Your task to perform on an android device: How do I get to the nearest Burger King? Image 0: 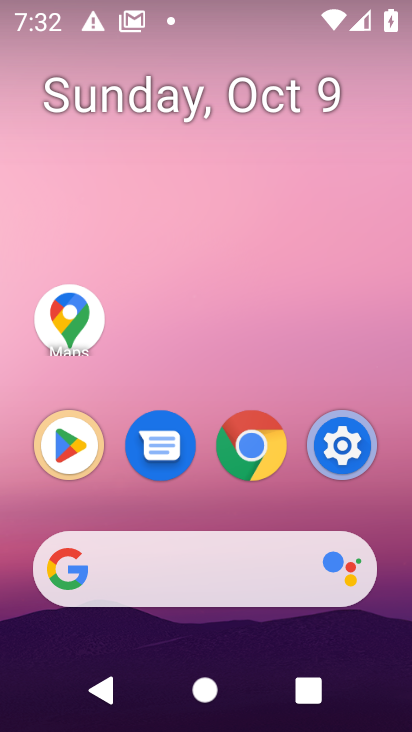
Step 0: drag from (209, 536) to (226, 44)
Your task to perform on an android device: How do I get to the nearest Burger King? Image 1: 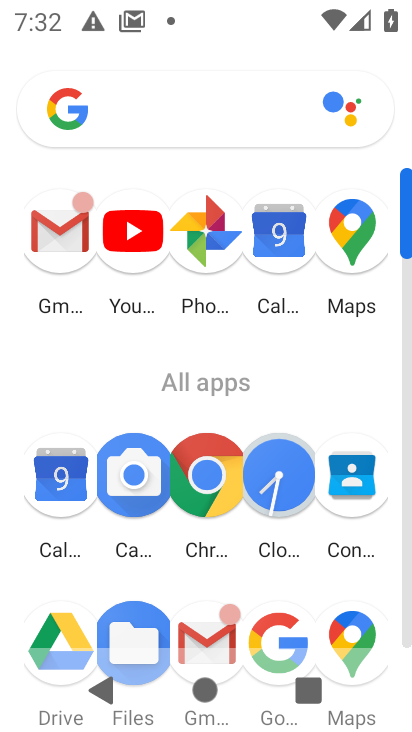
Step 1: click (273, 628)
Your task to perform on an android device: How do I get to the nearest Burger King? Image 2: 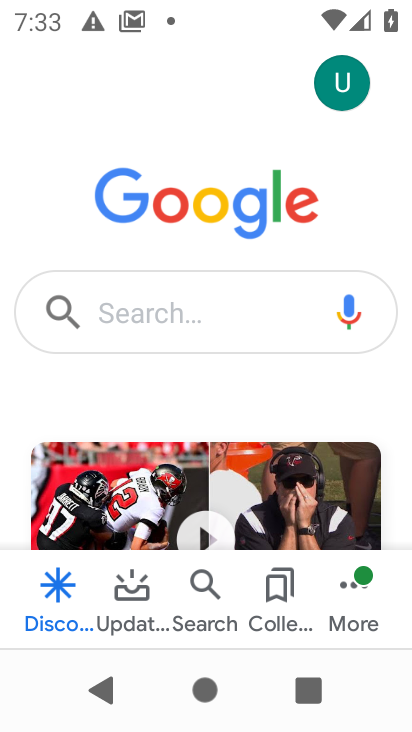
Step 2: type "How do I get to the nearest Burger King?"
Your task to perform on an android device: How do I get to the nearest Burger King? Image 3: 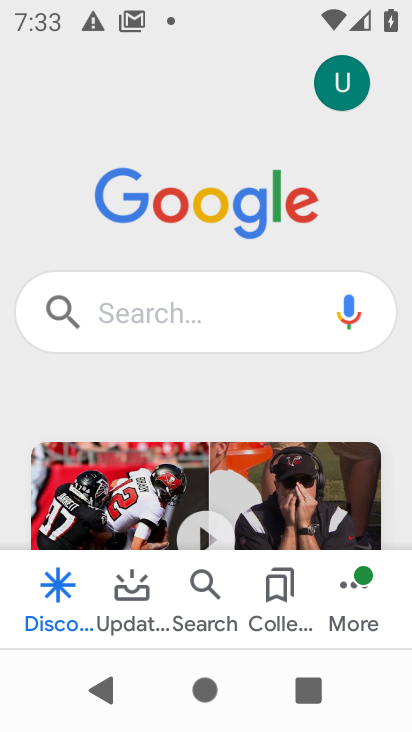
Step 3: click (159, 315)
Your task to perform on an android device: How do I get to the nearest Burger King? Image 4: 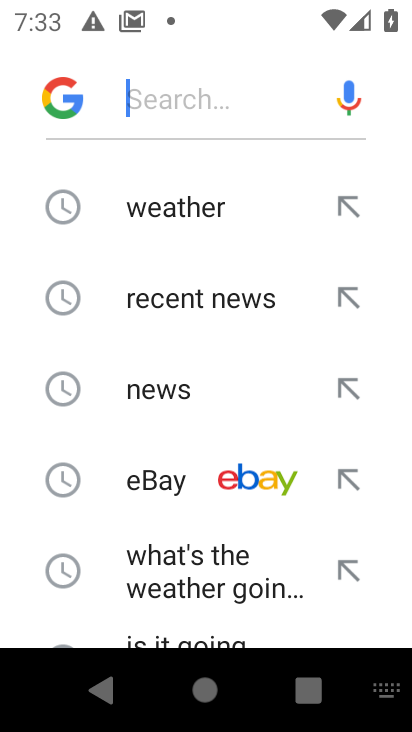
Step 4: type "How do I get to the nearest Burger King?"
Your task to perform on an android device: How do I get to the nearest Burger King? Image 5: 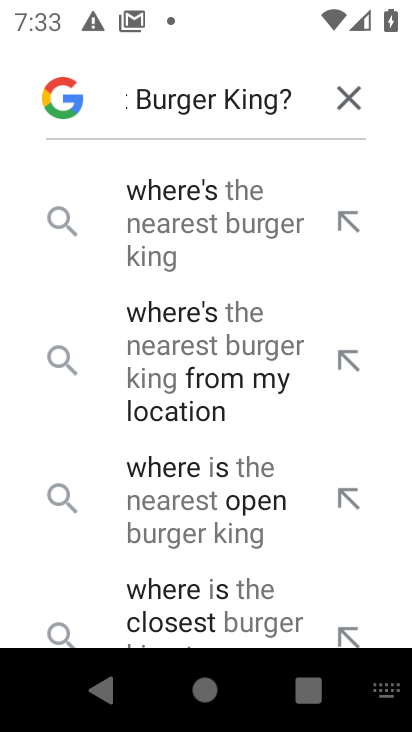
Step 5: click (176, 232)
Your task to perform on an android device: How do I get to the nearest Burger King? Image 6: 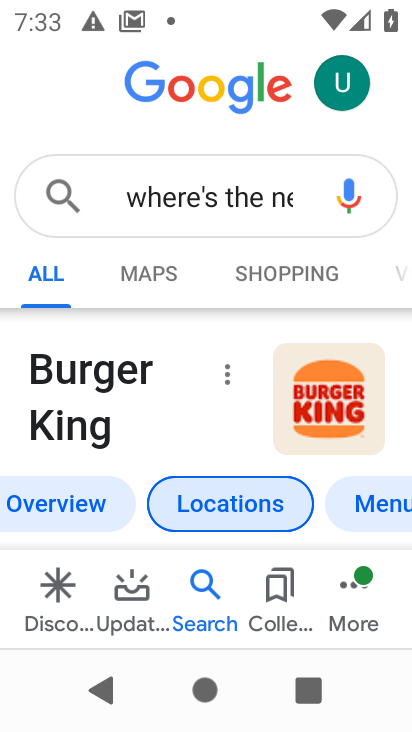
Step 6: task complete